Your task to perform on an android device: Do I have any events tomorrow? Image 0: 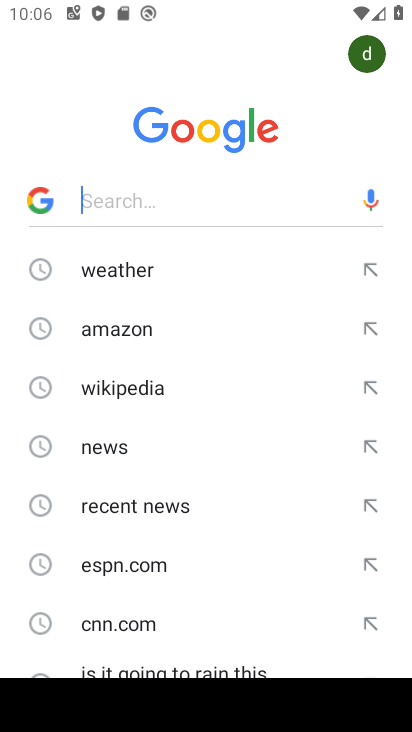
Step 0: press home button
Your task to perform on an android device: Do I have any events tomorrow? Image 1: 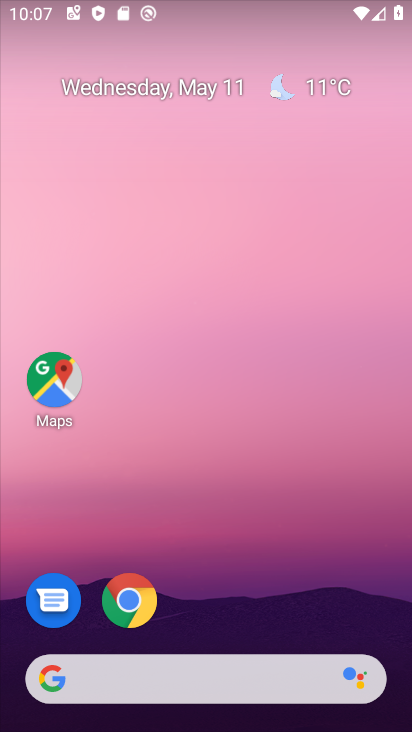
Step 1: drag from (331, 592) to (291, 367)
Your task to perform on an android device: Do I have any events tomorrow? Image 2: 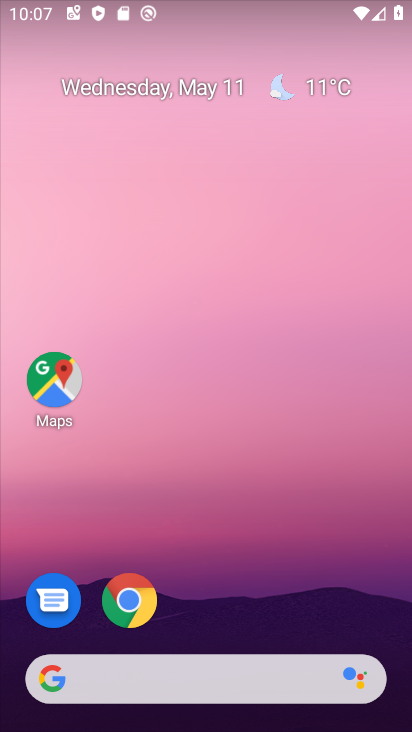
Step 2: drag from (309, 605) to (342, 281)
Your task to perform on an android device: Do I have any events tomorrow? Image 3: 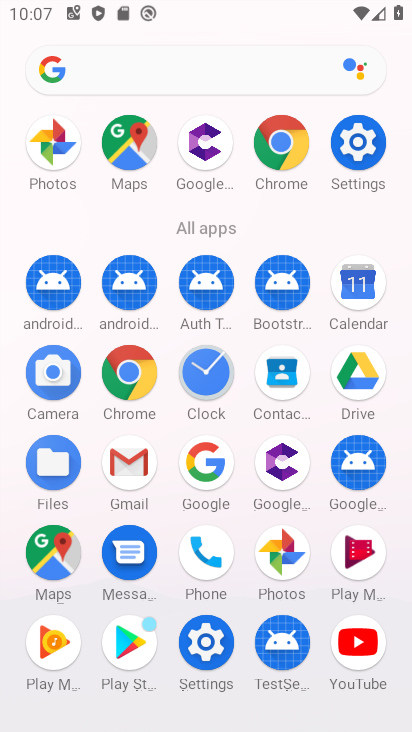
Step 3: click (365, 286)
Your task to perform on an android device: Do I have any events tomorrow? Image 4: 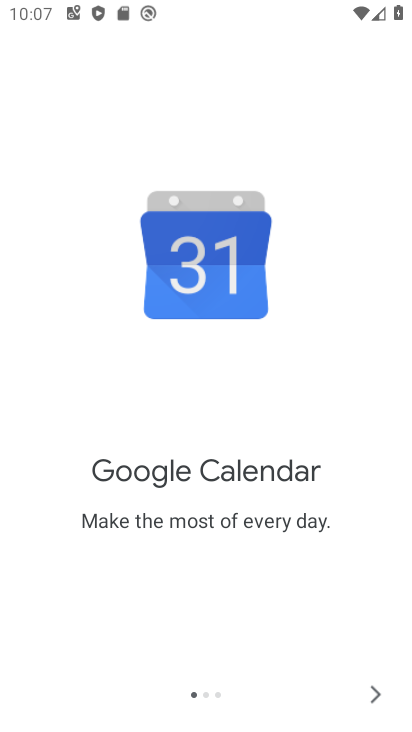
Step 4: click (372, 690)
Your task to perform on an android device: Do I have any events tomorrow? Image 5: 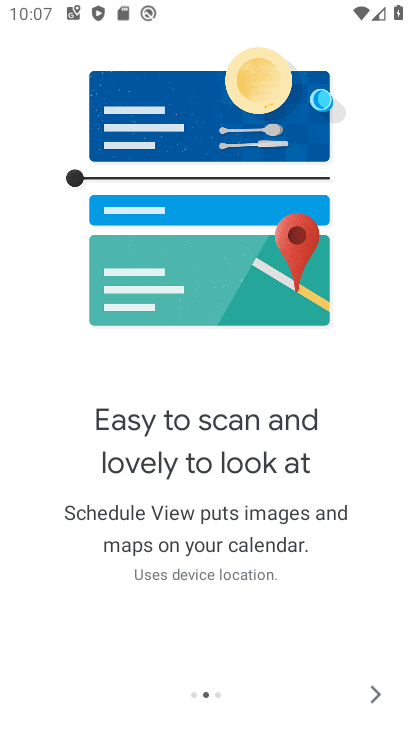
Step 5: click (373, 691)
Your task to perform on an android device: Do I have any events tomorrow? Image 6: 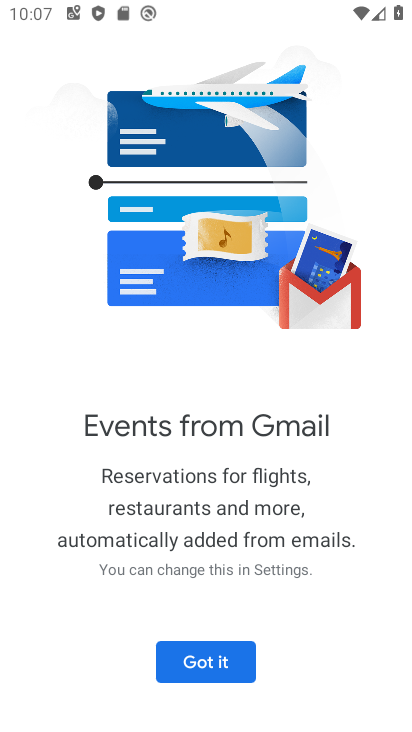
Step 6: click (373, 691)
Your task to perform on an android device: Do I have any events tomorrow? Image 7: 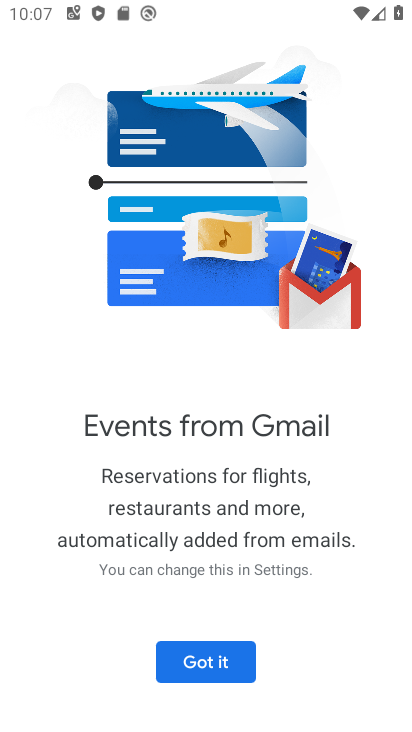
Step 7: click (214, 666)
Your task to perform on an android device: Do I have any events tomorrow? Image 8: 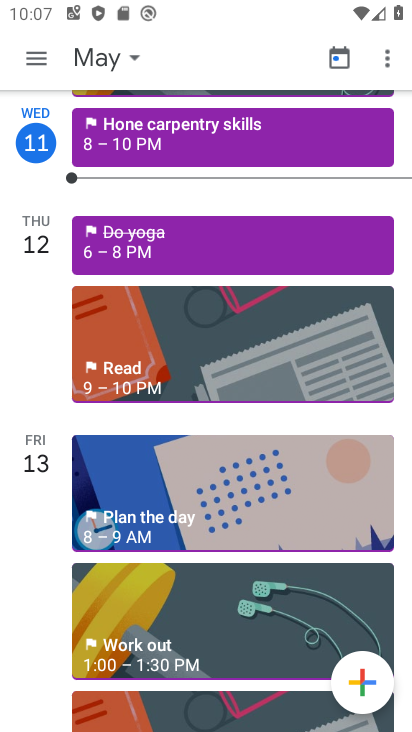
Step 8: click (31, 54)
Your task to perform on an android device: Do I have any events tomorrow? Image 9: 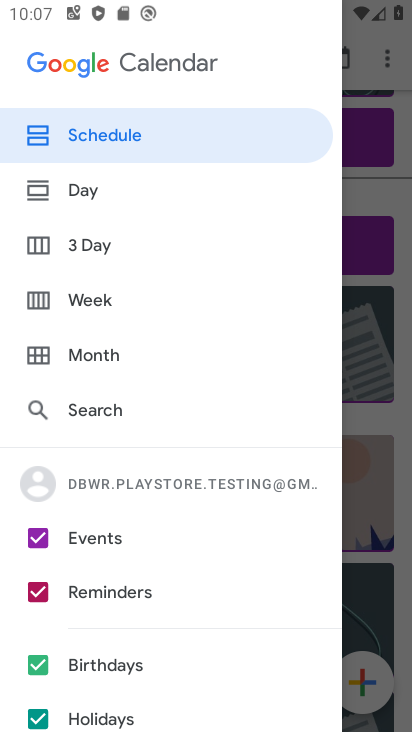
Step 9: click (117, 197)
Your task to perform on an android device: Do I have any events tomorrow? Image 10: 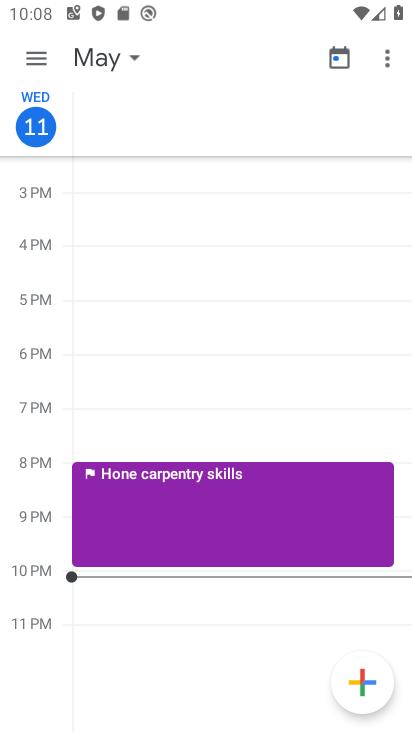
Step 10: click (104, 55)
Your task to perform on an android device: Do I have any events tomorrow? Image 11: 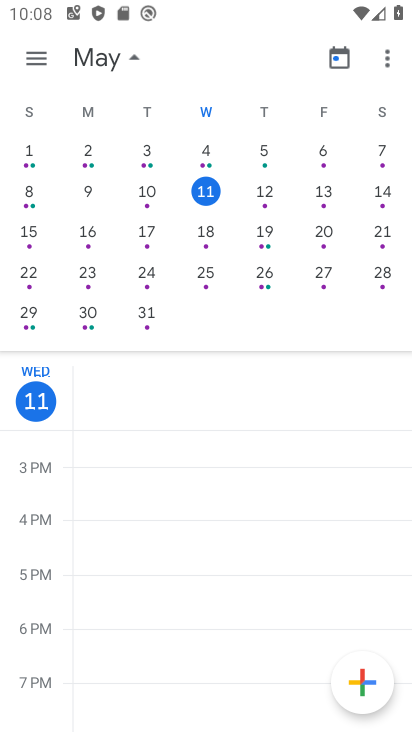
Step 11: click (266, 190)
Your task to perform on an android device: Do I have any events tomorrow? Image 12: 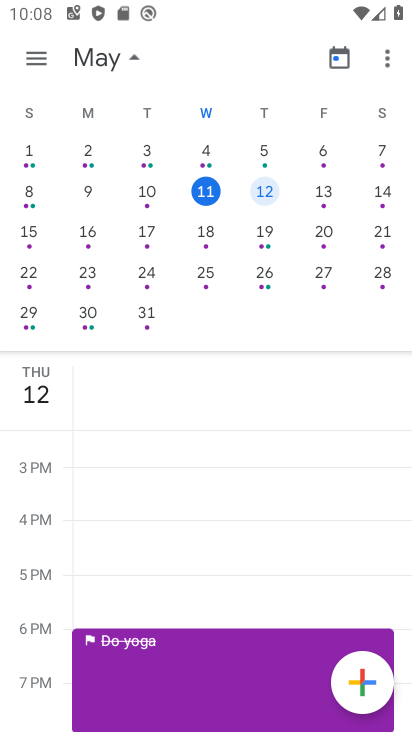
Step 12: click (324, 193)
Your task to perform on an android device: Do I have any events tomorrow? Image 13: 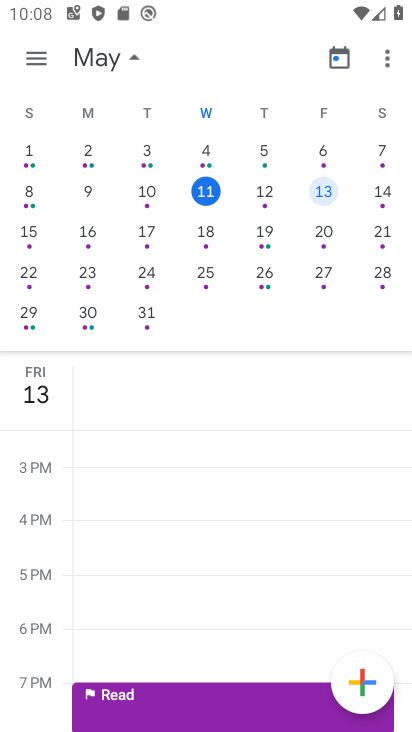
Step 13: task complete